Your task to perform on an android device: open chrome privacy settings Image 0: 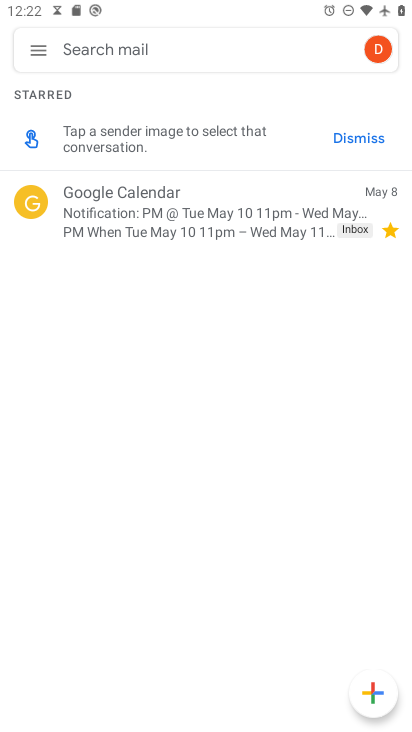
Step 0: press home button
Your task to perform on an android device: open chrome privacy settings Image 1: 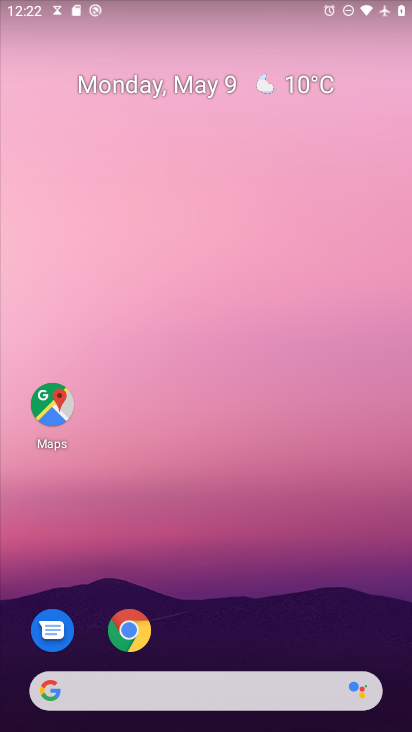
Step 1: click (129, 634)
Your task to perform on an android device: open chrome privacy settings Image 2: 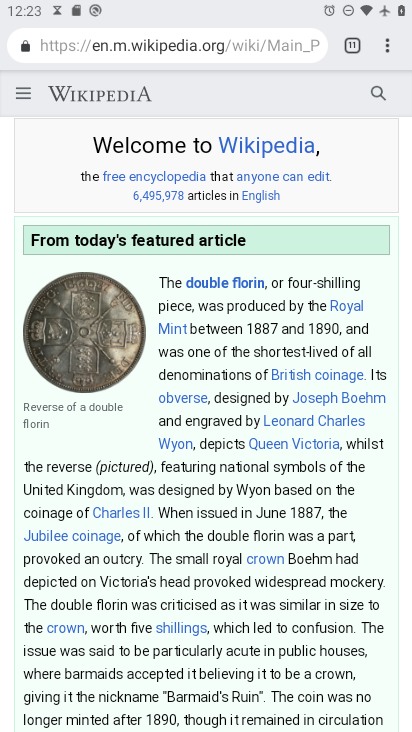
Step 2: drag from (384, 47) to (236, 551)
Your task to perform on an android device: open chrome privacy settings Image 3: 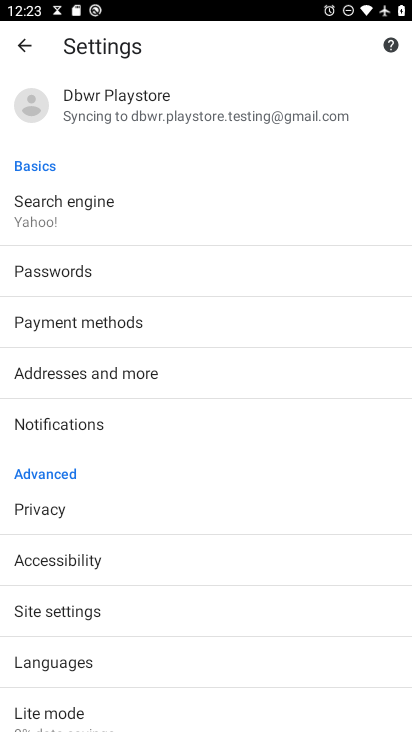
Step 3: click (48, 501)
Your task to perform on an android device: open chrome privacy settings Image 4: 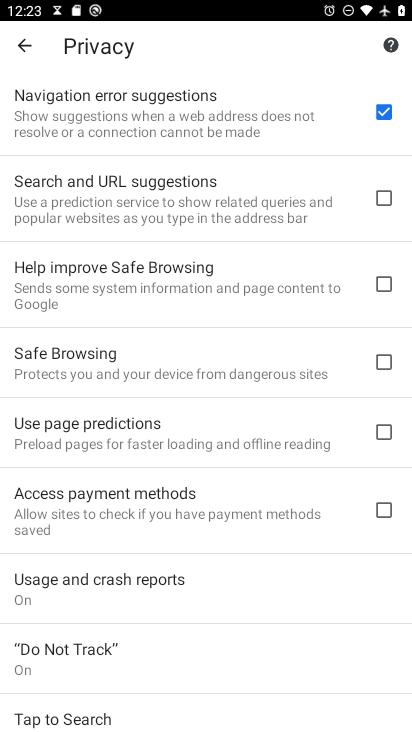
Step 4: task complete